Your task to perform on an android device: Go to Maps Image 0: 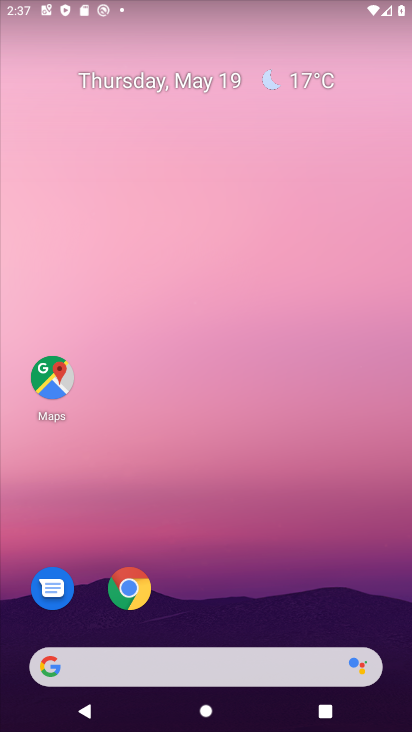
Step 0: click (61, 384)
Your task to perform on an android device: Go to Maps Image 1: 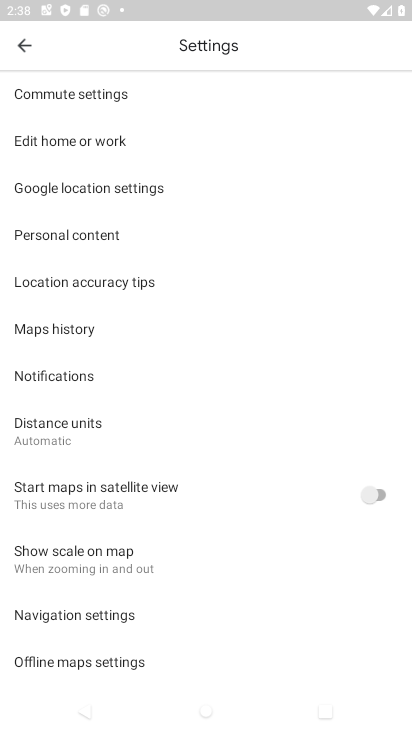
Step 1: task complete